Your task to perform on an android device: Open notification settings Image 0: 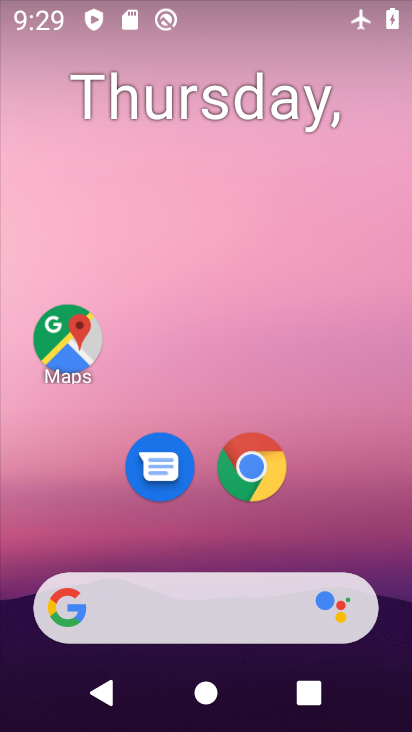
Step 0: drag from (323, 65) to (331, 6)
Your task to perform on an android device: Open notification settings Image 1: 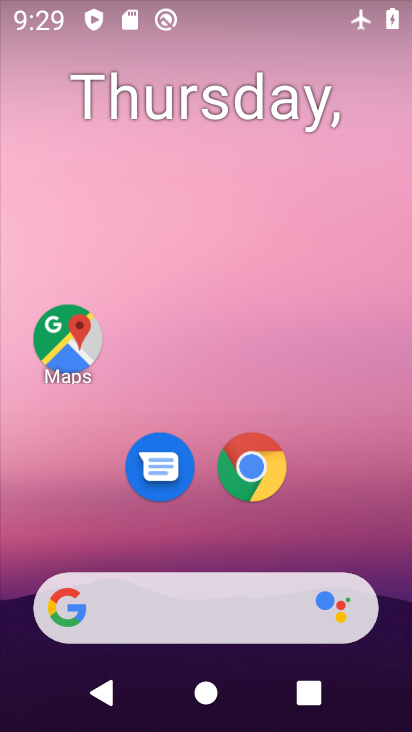
Step 1: drag from (333, 404) to (323, 77)
Your task to perform on an android device: Open notification settings Image 2: 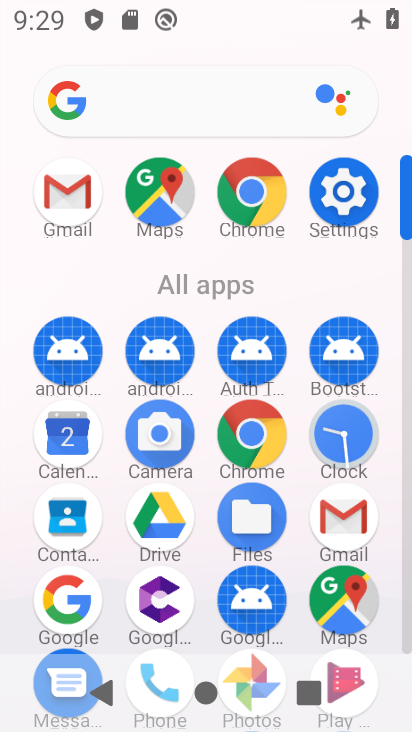
Step 2: click (339, 202)
Your task to perform on an android device: Open notification settings Image 3: 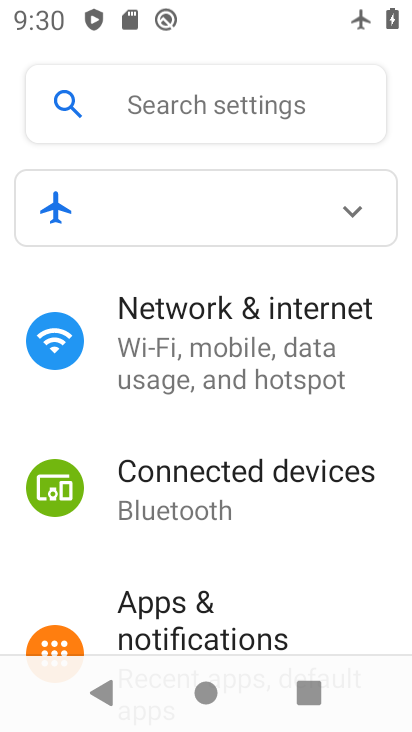
Step 3: drag from (317, 512) to (342, 224)
Your task to perform on an android device: Open notification settings Image 4: 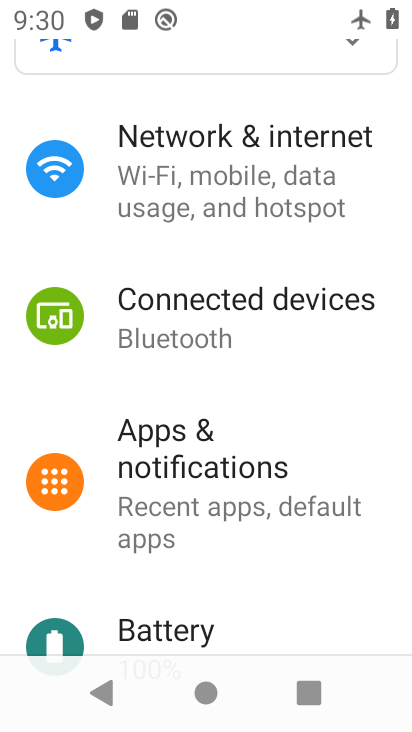
Step 4: click (236, 480)
Your task to perform on an android device: Open notification settings Image 5: 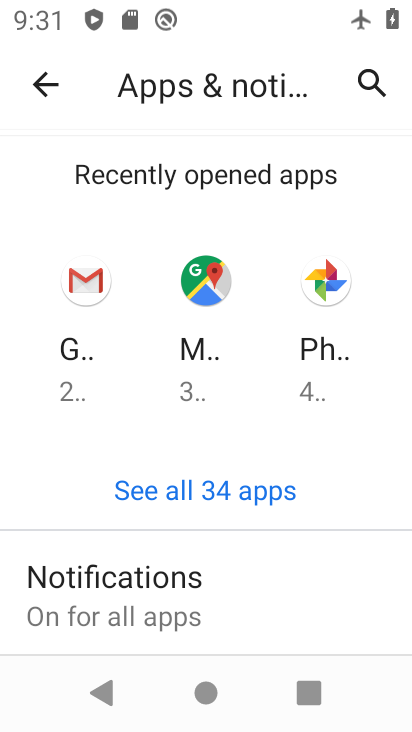
Step 5: click (109, 602)
Your task to perform on an android device: Open notification settings Image 6: 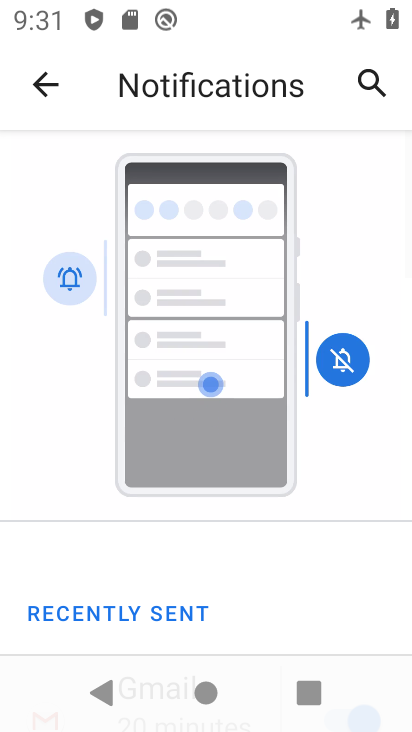
Step 6: task complete